Your task to perform on an android device: turn on translation in the chrome app Image 0: 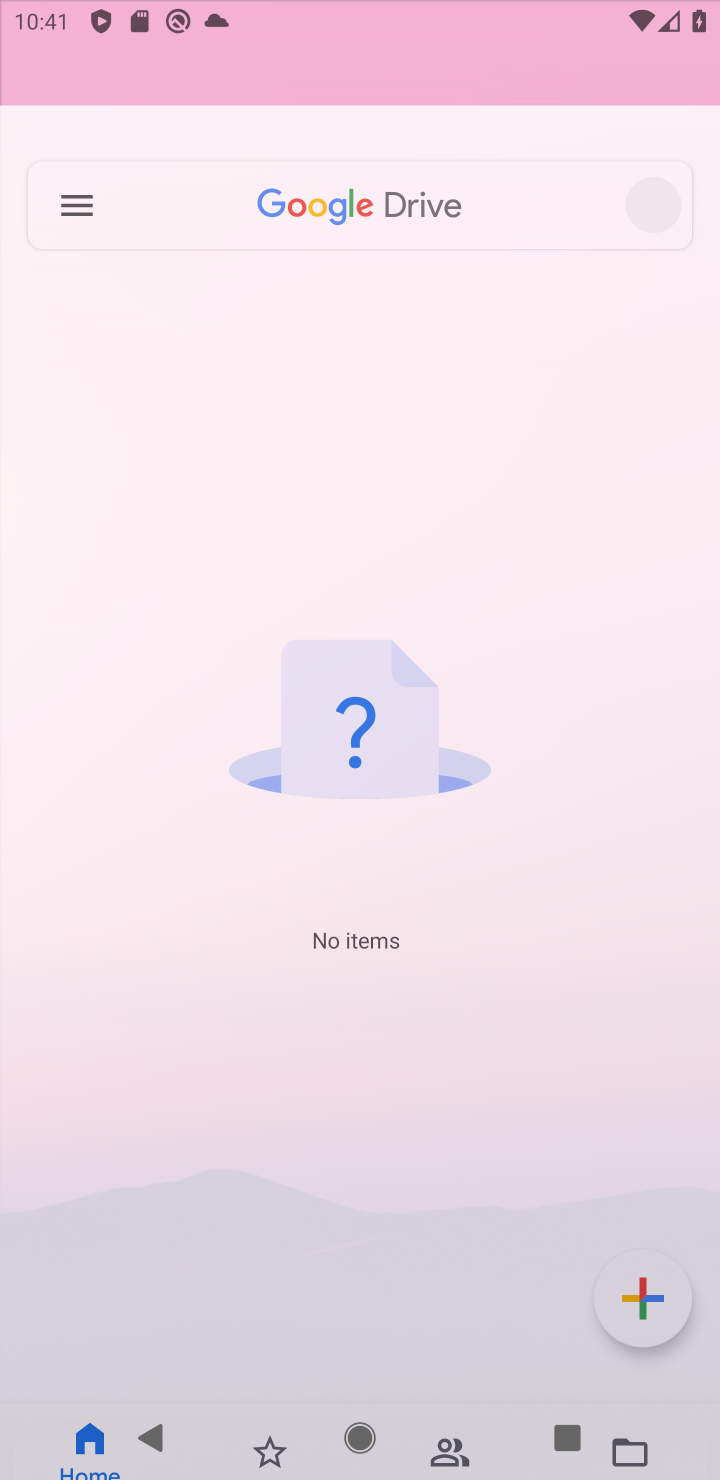
Step 0: press home button
Your task to perform on an android device: turn on translation in the chrome app Image 1: 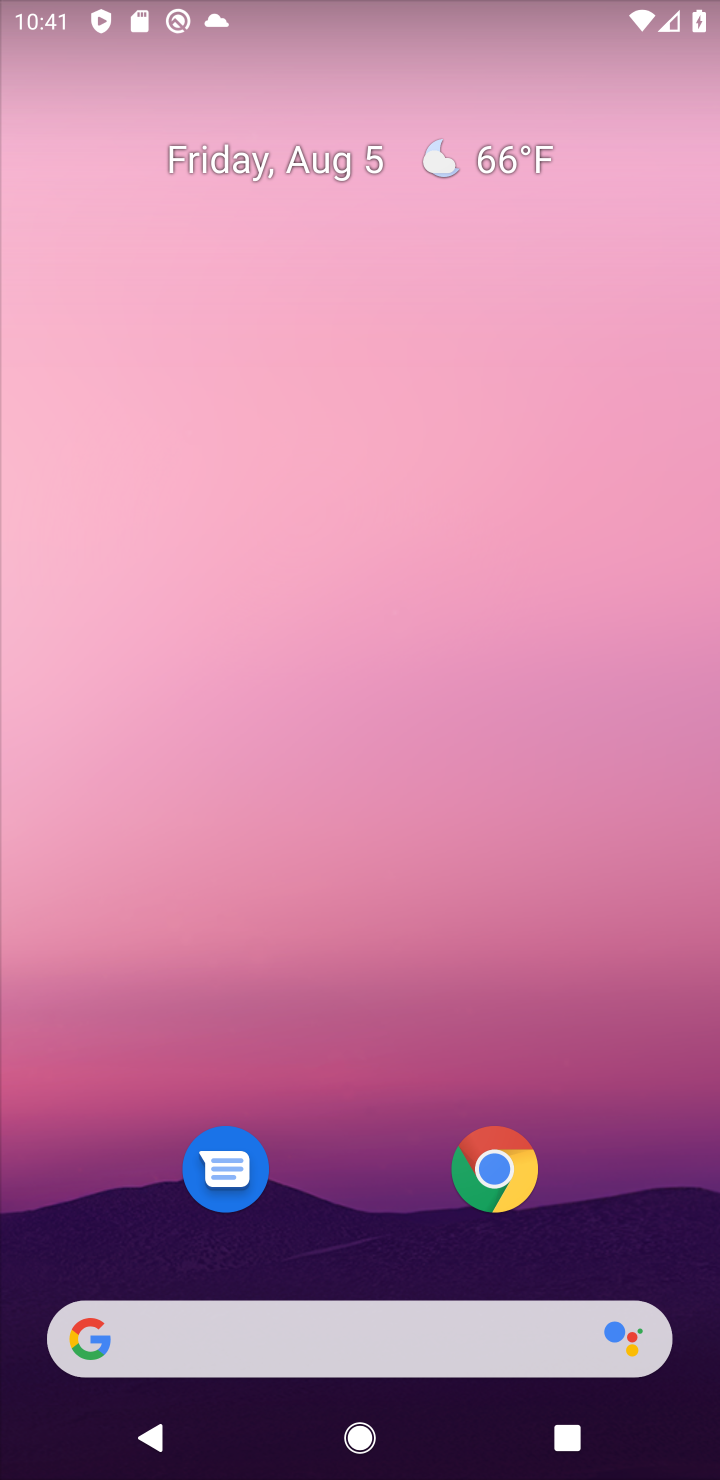
Step 1: click (495, 1166)
Your task to perform on an android device: turn on translation in the chrome app Image 2: 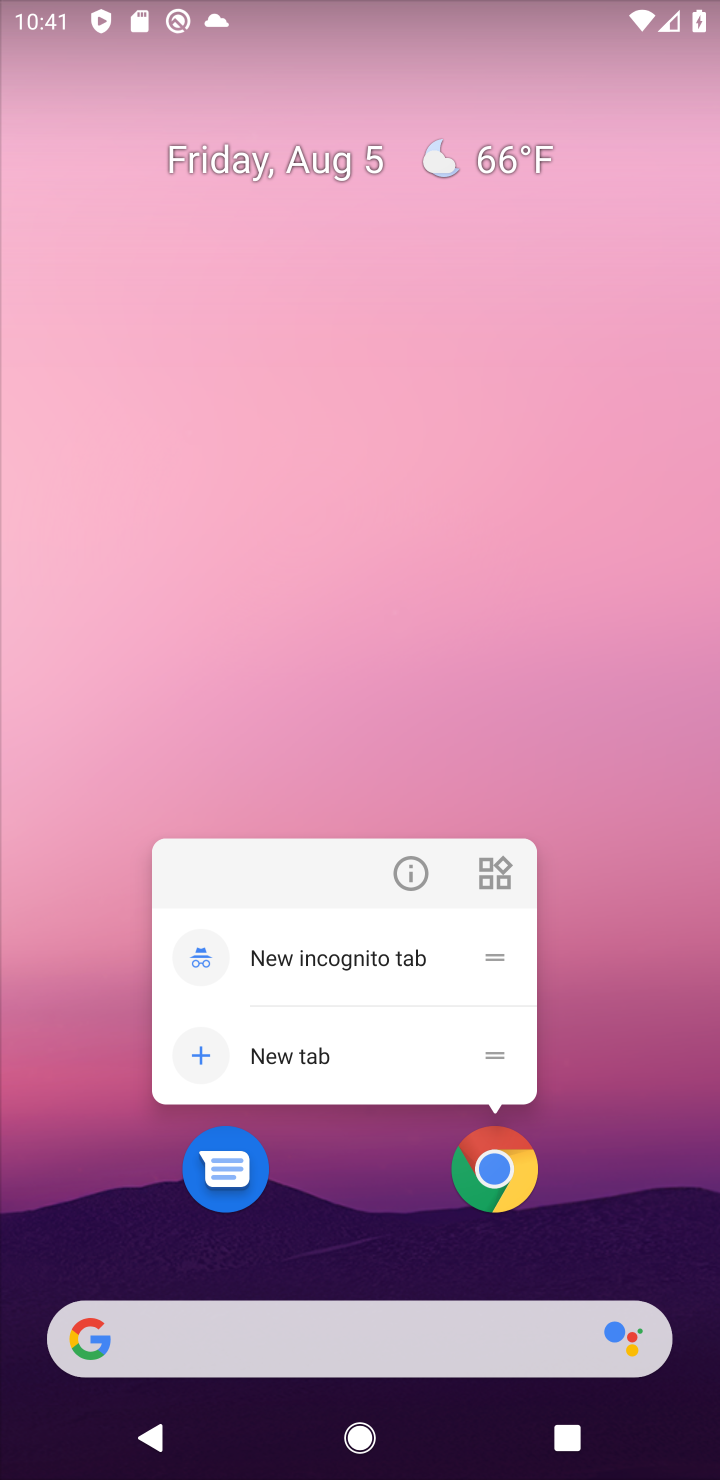
Step 2: click (494, 1173)
Your task to perform on an android device: turn on translation in the chrome app Image 3: 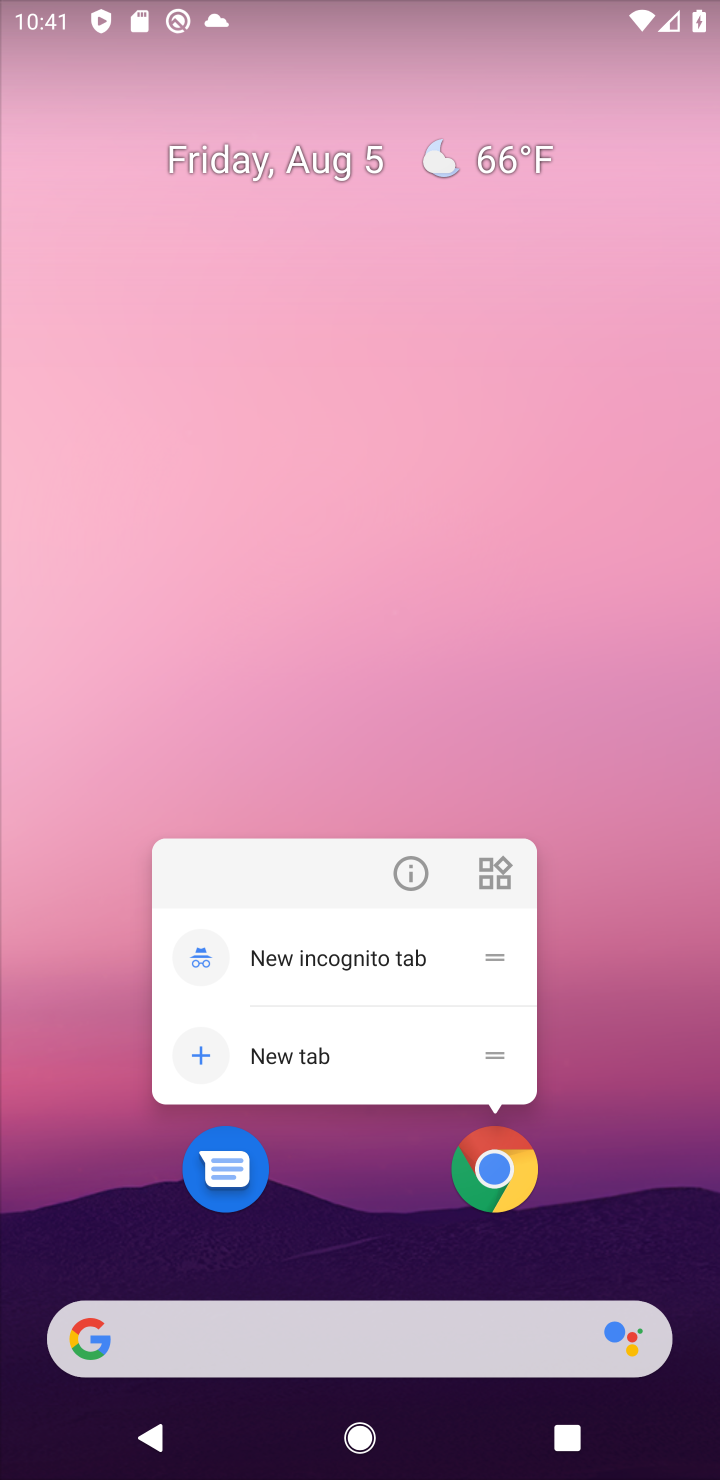
Step 3: click (494, 1173)
Your task to perform on an android device: turn on translation in the chrome app Image 4: 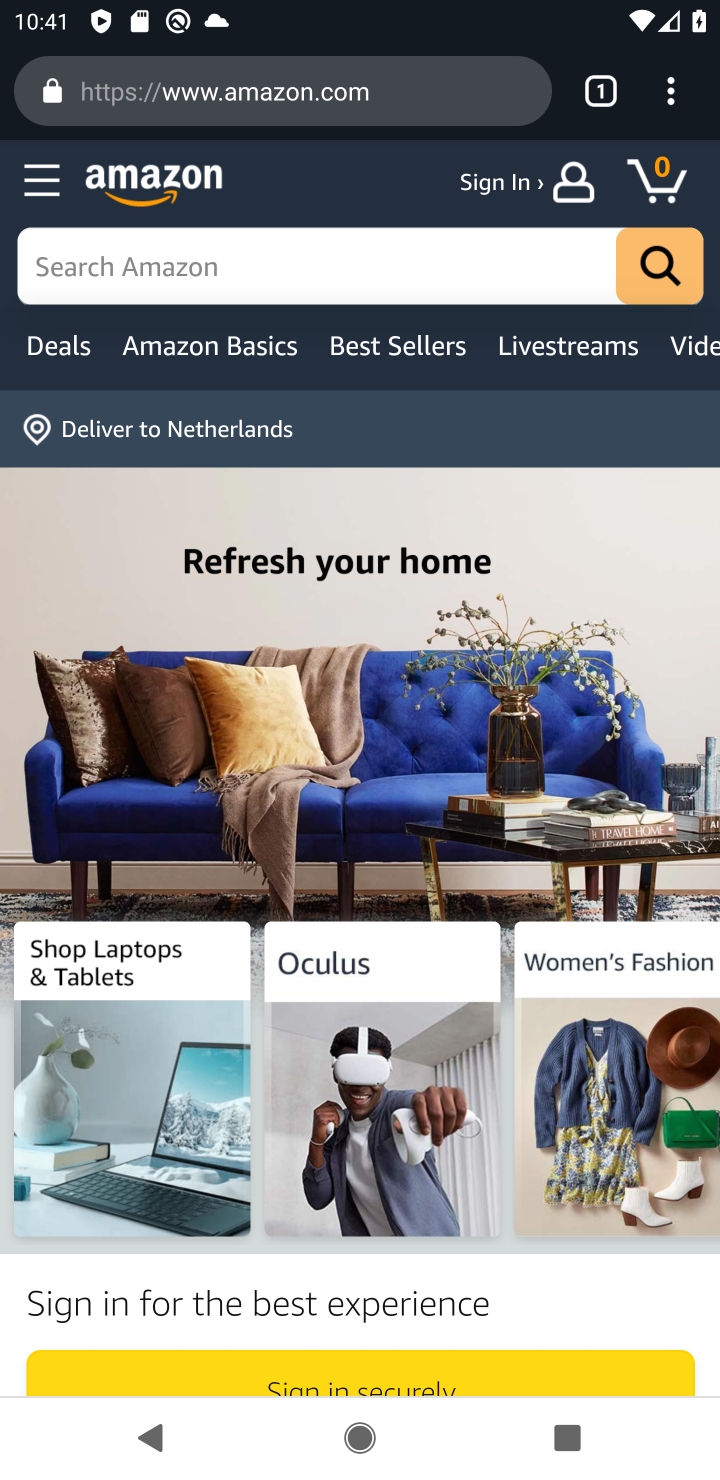
Step 4: click (663, 107)
Your task to perform on an android device: turn on translation in the chrome app Image 5: 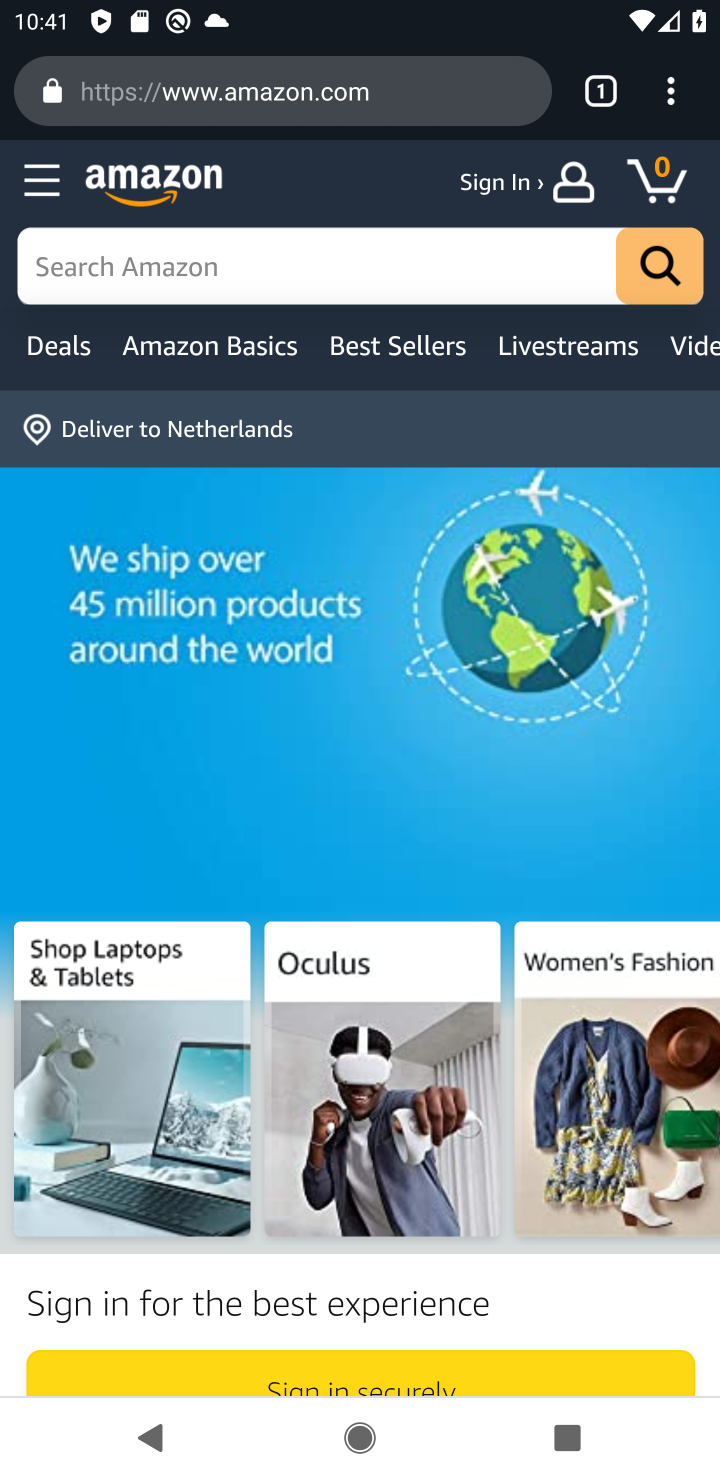
Step 5: click (657, 104)
Your task to perform on an android device: turn on translation in the chrome app Image 6: 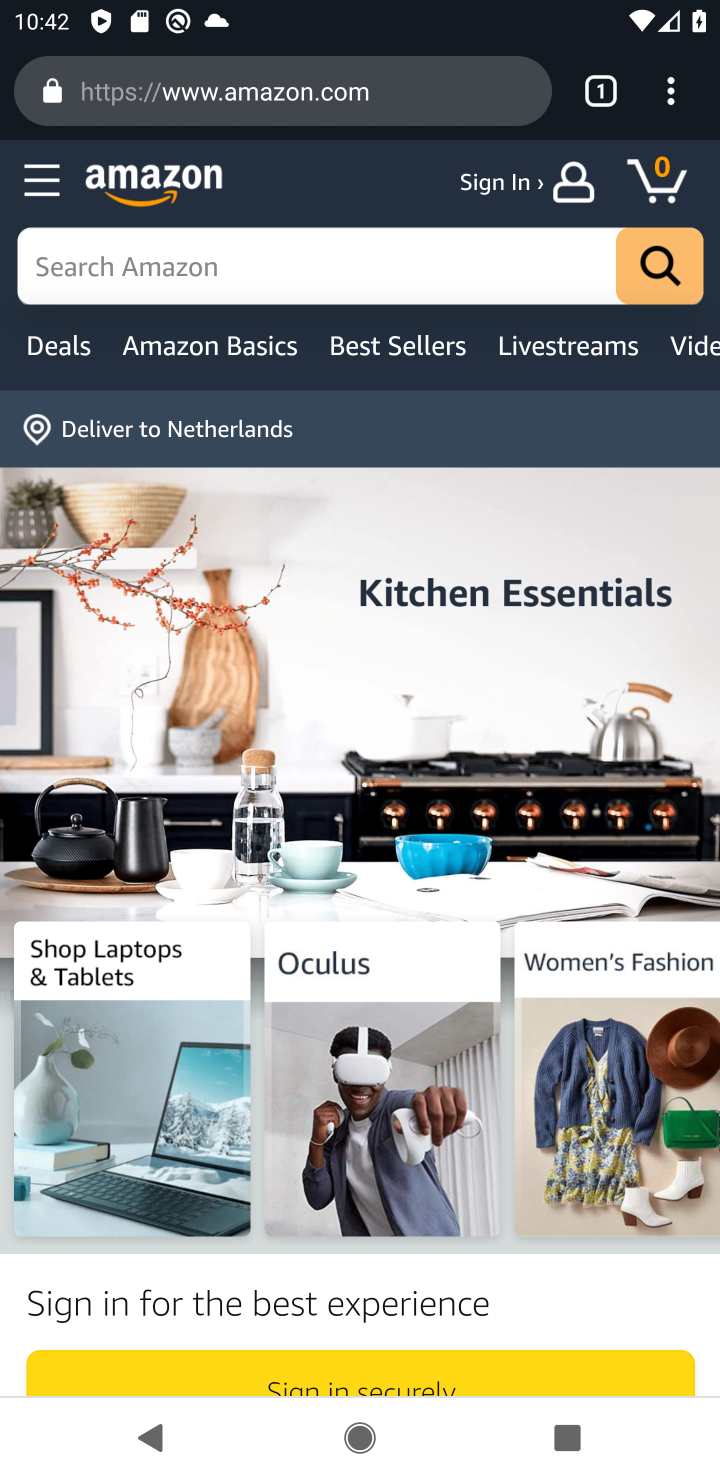
Step 6: click (660, 109)
Your task to perform on an android device: turn on translation in the chrome app Image 7: 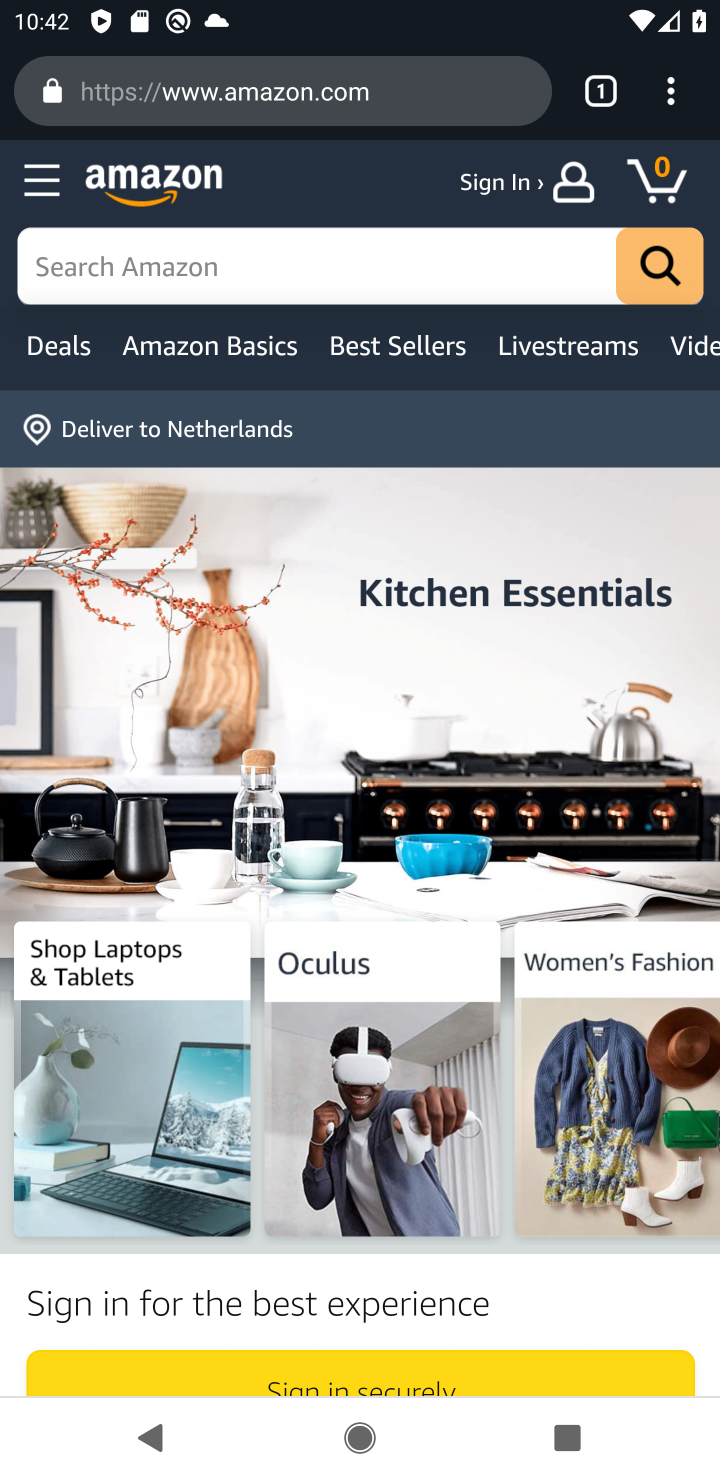
Step 7: task complete